Your task to perform on an android device: Open settings on Google Maps Image 0: 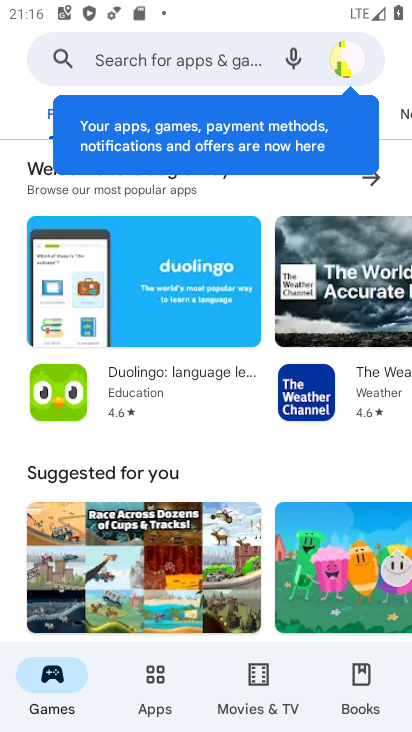
Step 0: press back button
Your task to perform on an android device: Open settings on Google Maps Image 1: 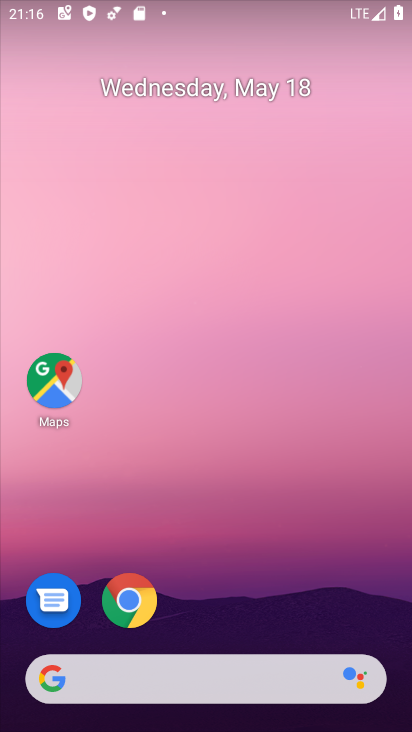
Step 1: click (48, 377)
Your task to perform on an android device: Open settings on Google Maps Image 2: 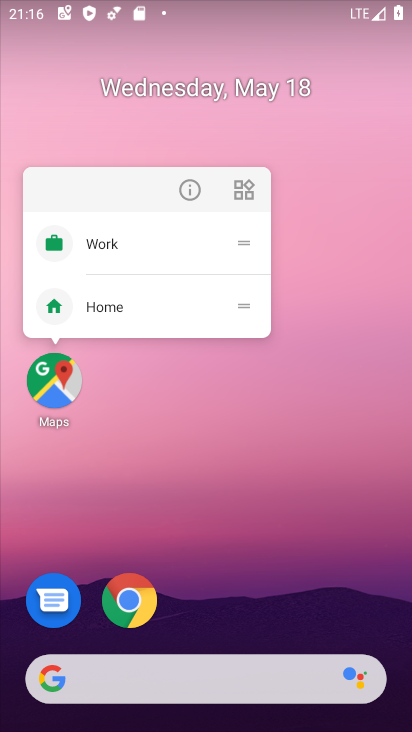
Step 2: click (48, 377)
Your task to perform on an android device: Open settings on Google Maps Image 3: 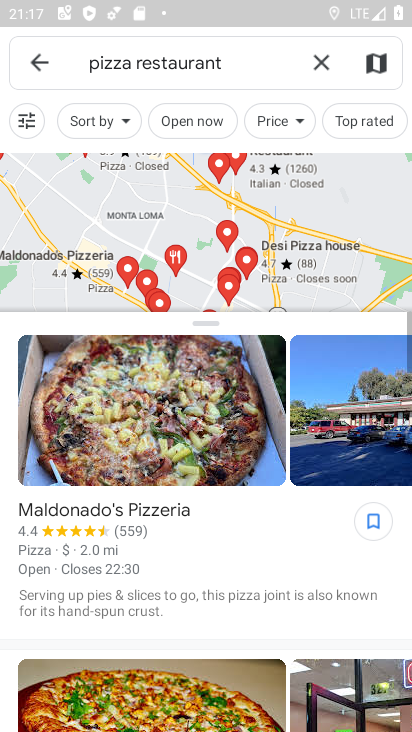
Step 3: task complete